Your task to perform on an android device: set the timer Image 0: 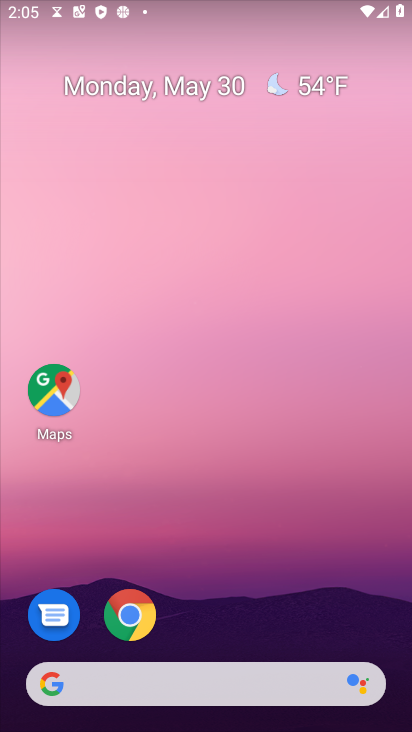
Step 0: drag from (308, 533) to (301, 22)
Your task to perform on an android device: set the timer Image 1: 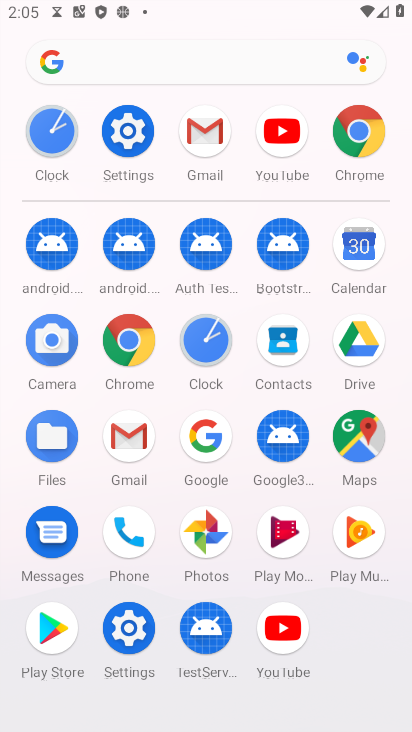
Step 1: click (44, 126)
Your task to perform on an android device: set the timer Image 2: 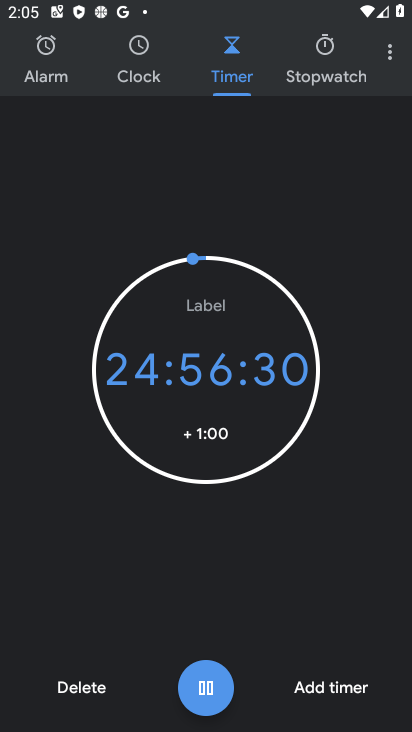
Step 2: task complete